Your task to perform on an android device: Open Google Image 0: 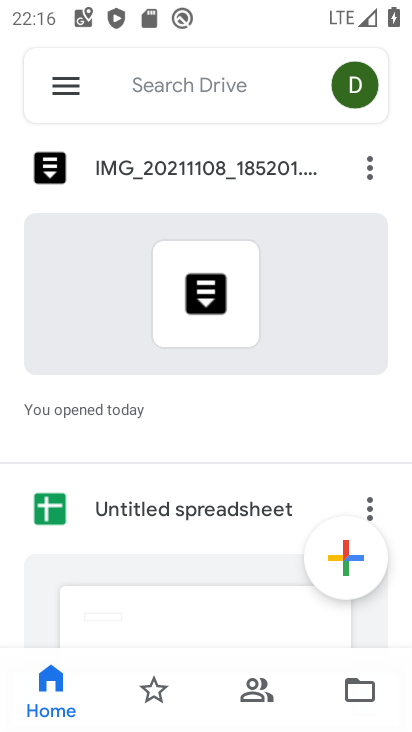
Step 0: press home button
Your task to perform on an android device: Open Google Image 1: 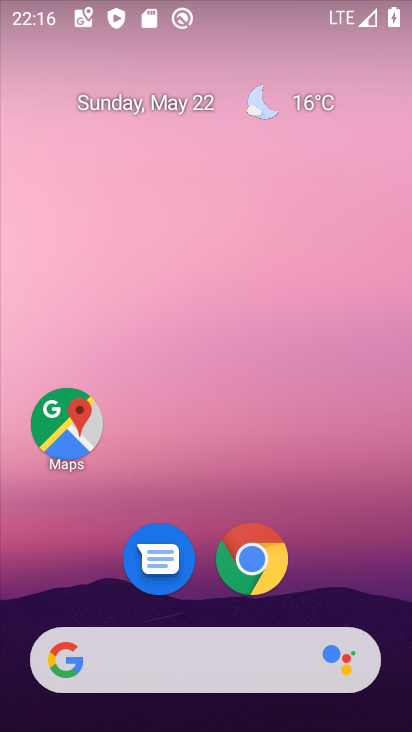
Step 1: drag from (234, 705) to (226, 262)
Your task to perform on an android device: Open Google Image 2: 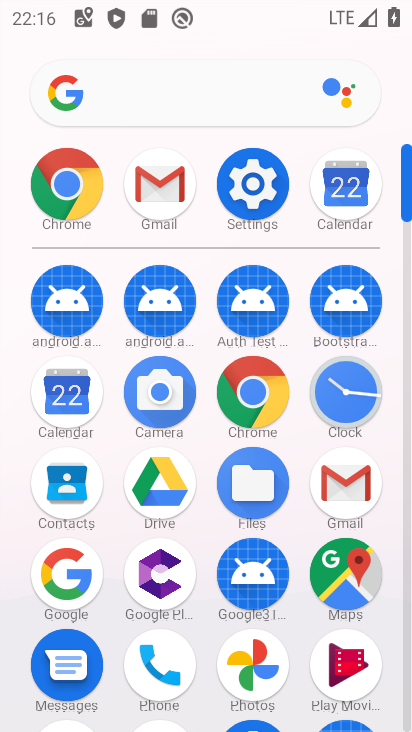
Step 2: click (48, 92)
Your task to perform on an android device: Open Google Image 3: 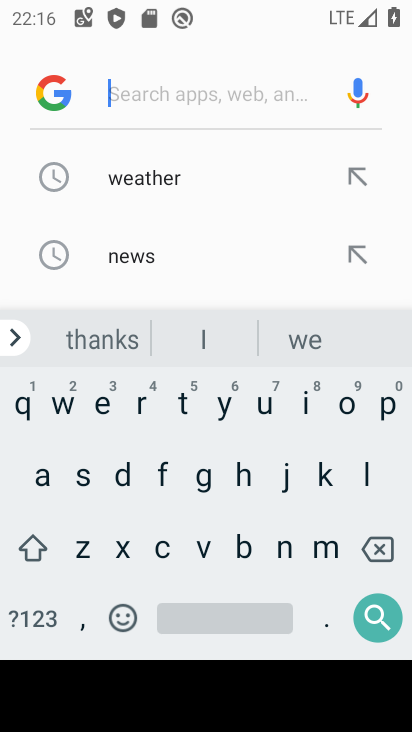
Step 3: click (67, 87)
Your task to perform on an android device: Open Google Image 4: 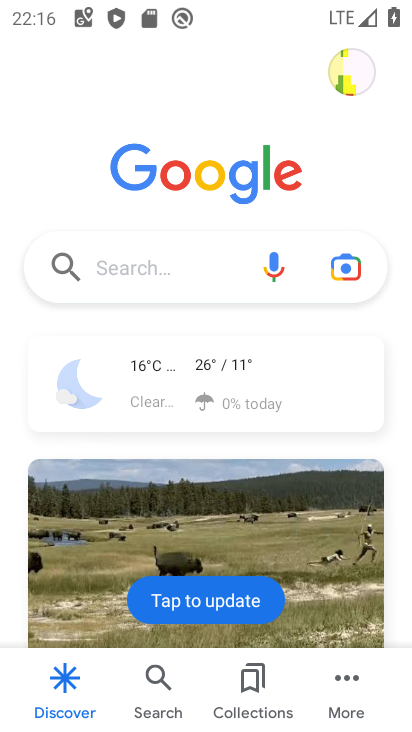
Step 4: task complete